Your task to perform on an android device: Open Maps and search for coffee Image 0: 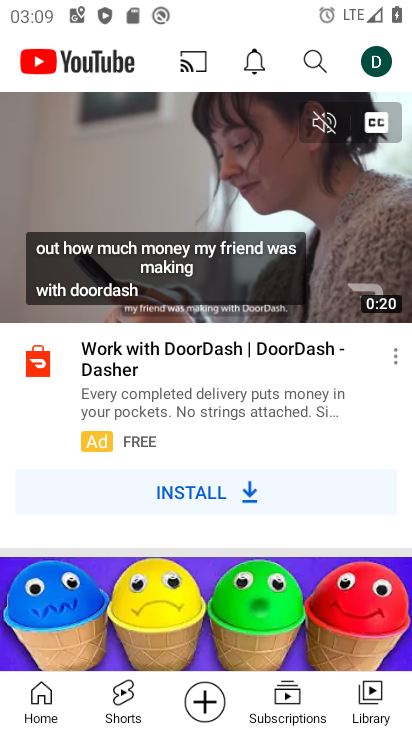
Step 0: press home button
Your task to perform on an android device: Open Maps and search for coffee Image 1: 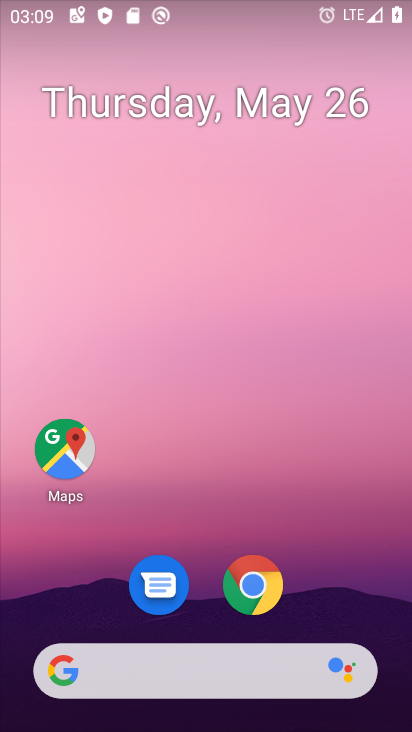
Step 1: click (69, 451)
Your task to perform on an android device: Open Maps and search for coffee Image 2: 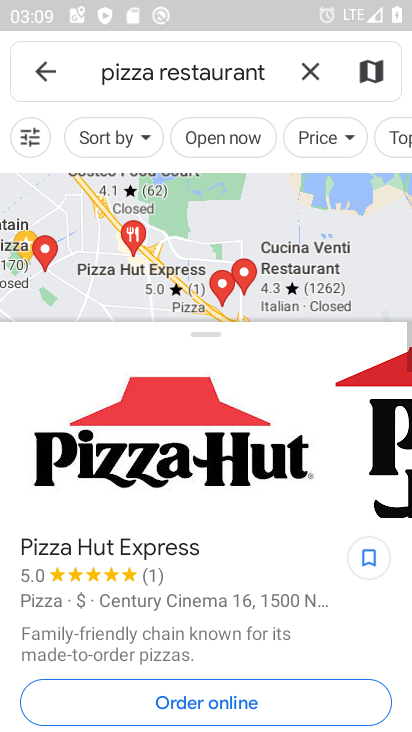
Step 2: click (309, 58)
Your task to perform on an android device: Open Maps and search for coffee Image 3: 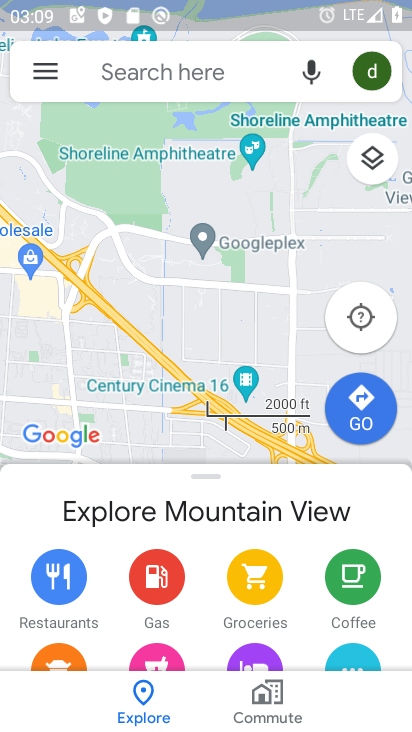
Step 3: click (216, 63)
Your task to perform on an android device: Open Maps and search for coffee Image 4: 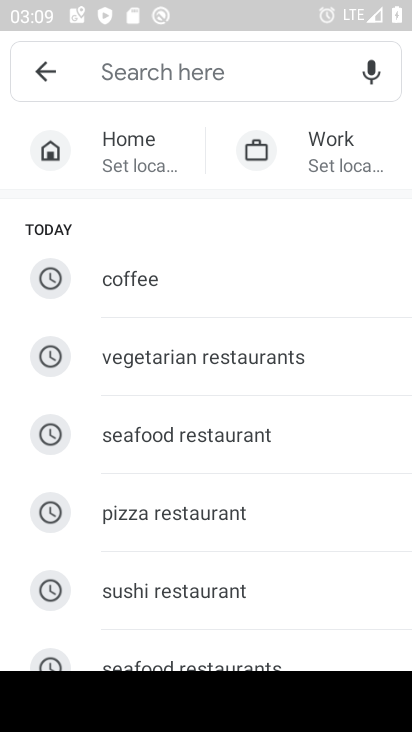
Step 4: click (145, 276)
Your task to perform on an android device: Open Maps and search for coffee Image 5: 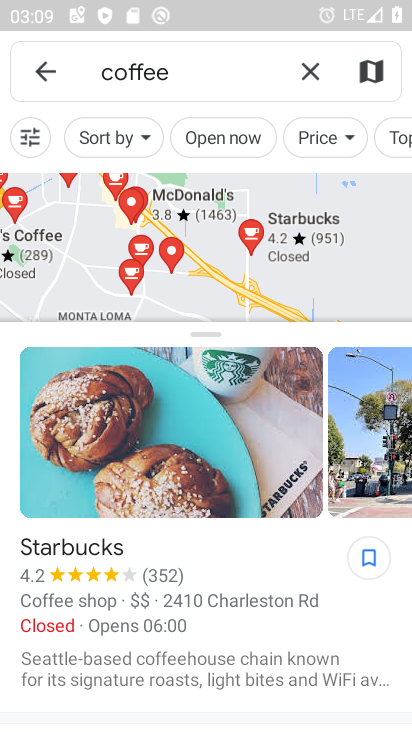
Step 5: task complete